Your task to perform on an android device: Open Android settings Image 0: 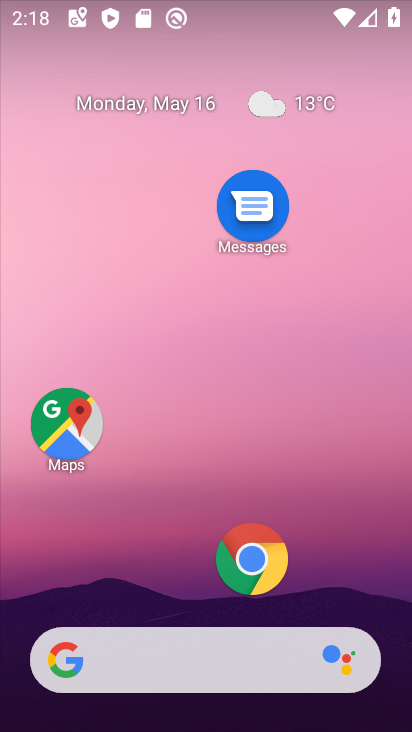
Step 0: drag from (157, 597) to (216, 157)
Your task to perform on an android device: Open Android settings Image 1: 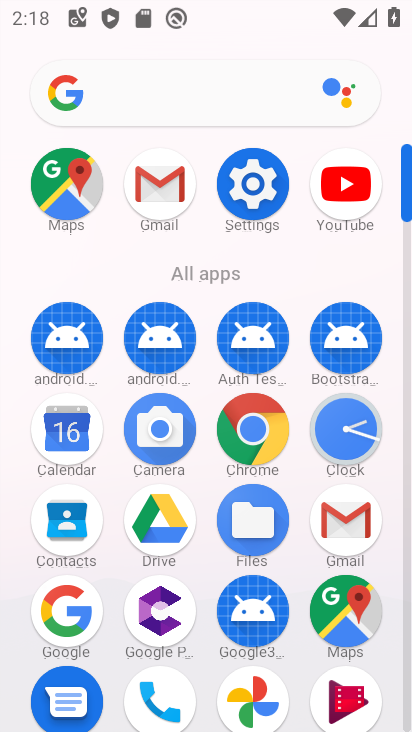
Step 1: click (255, 180)
Your task to perform on an android device: Open Android settings Image 2: 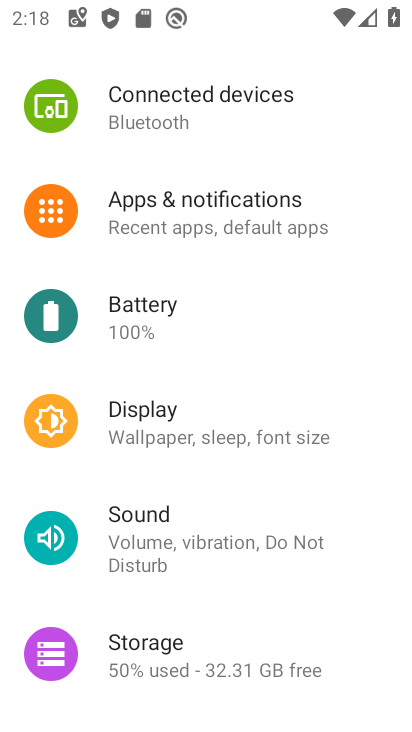
Step 2: task complete